Your task to perform on an android device: Open privacy settings Image 0: 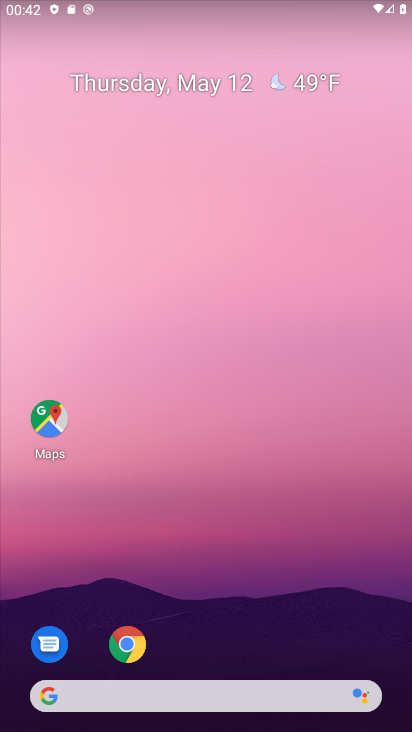
Step 0: drag from (216, 597) to (138, 121)
Your task to perform on an android device: Open privacy settings Image 1: 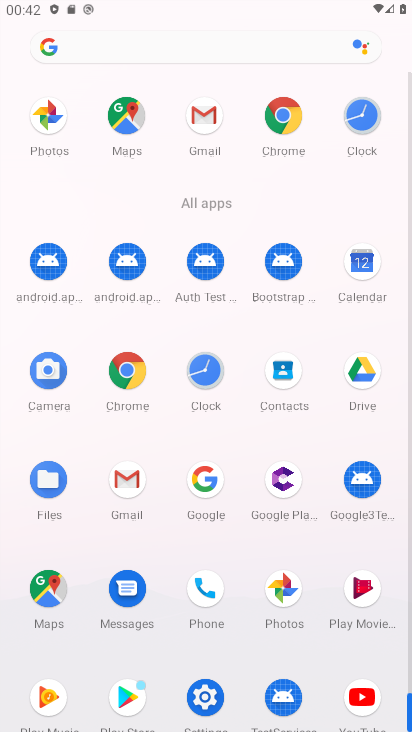
Step 1: click (205, 685)
Your task to perform on an android device: Open privacy settings Image 2: 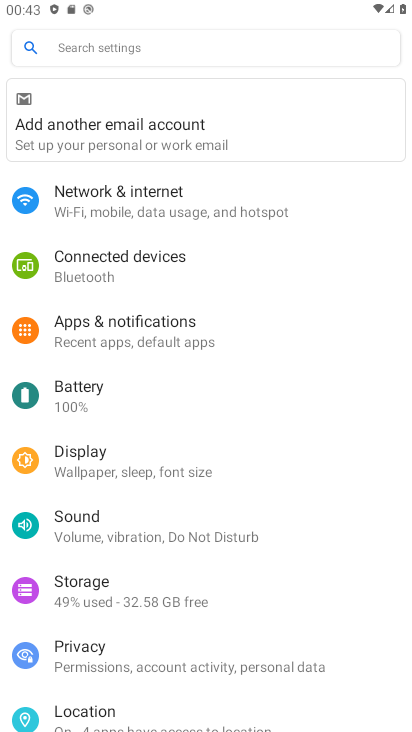
Step 2: click (85, 655)
Your task to perform on an android device: Open privacy settings Image 3: 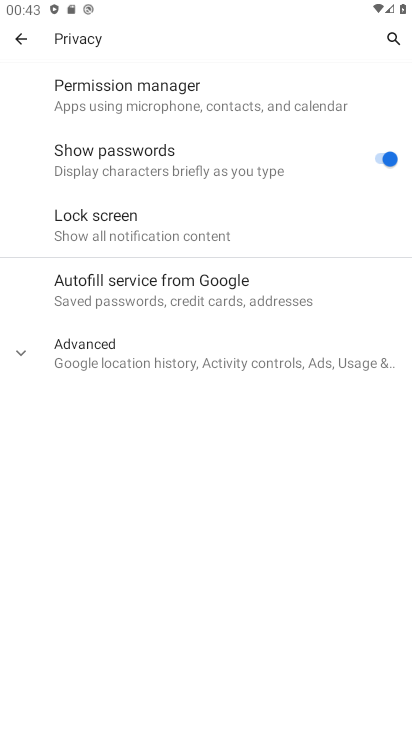
Step 3: task complete